Your task to perform on an android device: Open Google Image 0: 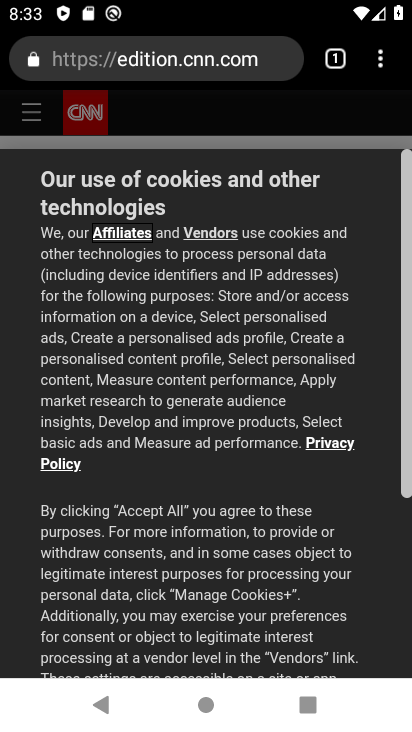
Step 0: press home button
Your task to perform on an android device: Open Google Image 1: 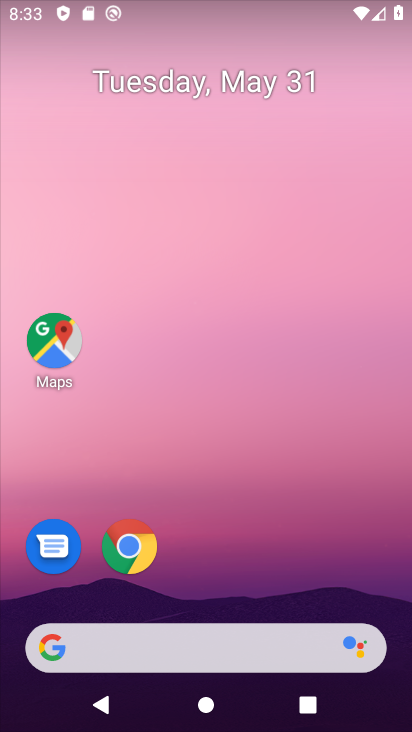
Step 1: drag from (403, 670) to (334, 36)
Your task to perform on an android device: Open Google Image 2: 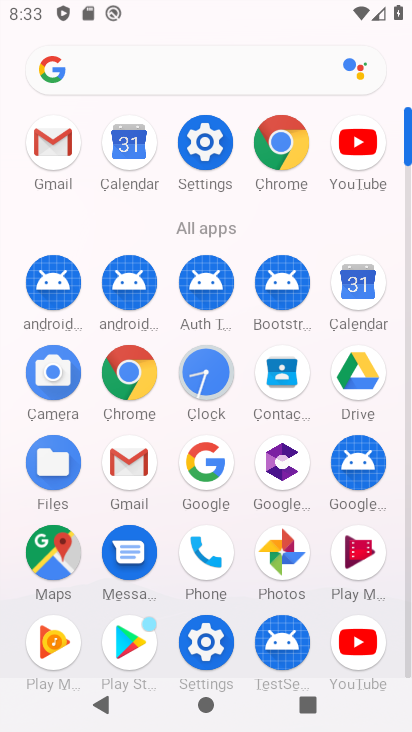
Step 2: click (201, 467)
Your task to perform on an android device: Open Google Image 3: 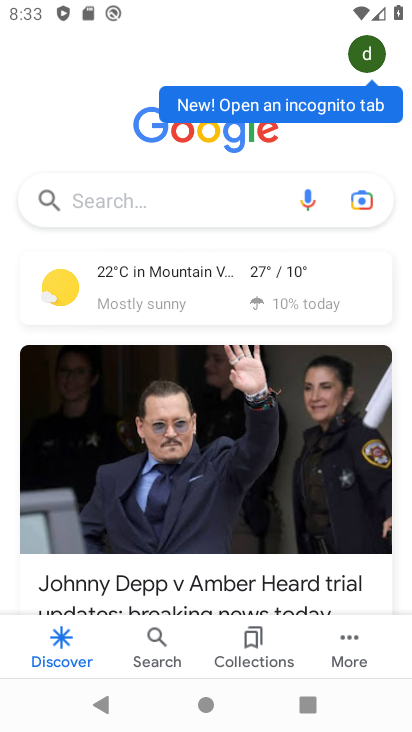
Step 3: task complete